Your task to perform on an android device: Turn off the flashlight Image 0: 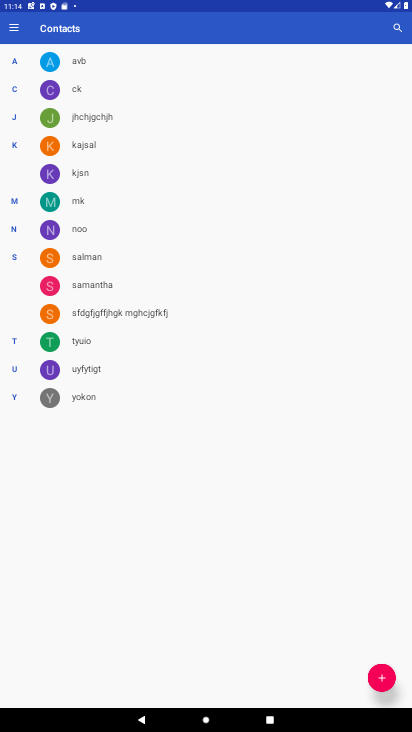
Step 0: press home button
Your task to perform on an android device: Turn off the flashlight Image 1: 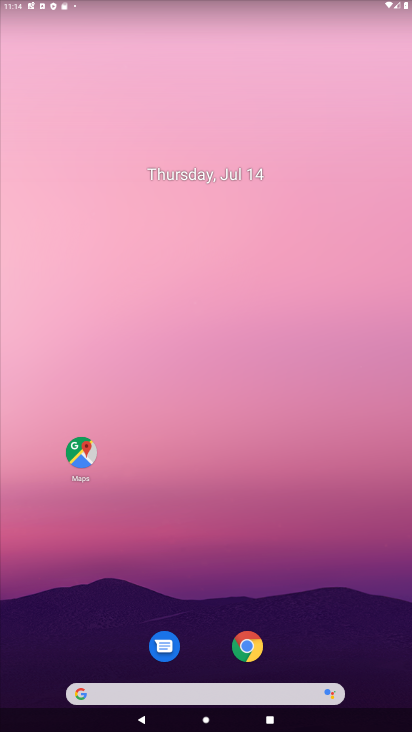
Step 1: drag from (210, 630) to (266, 121)
Your task to perform on an android device: Turn off the flashlight Image 2: 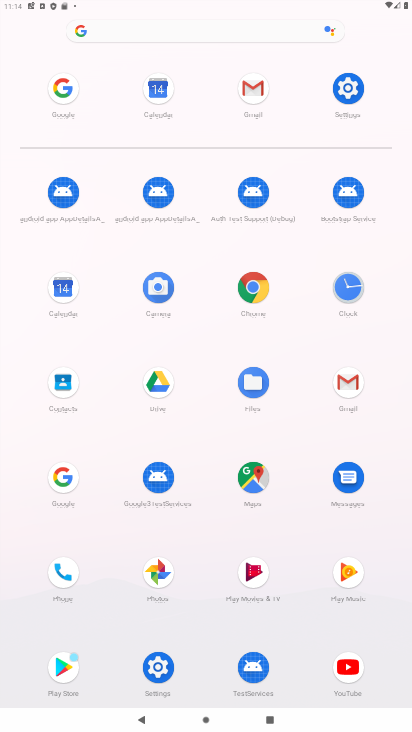
Step 2: click (334, 100)
Your task to perform on an android device: Turn off the flashlight Image 3: 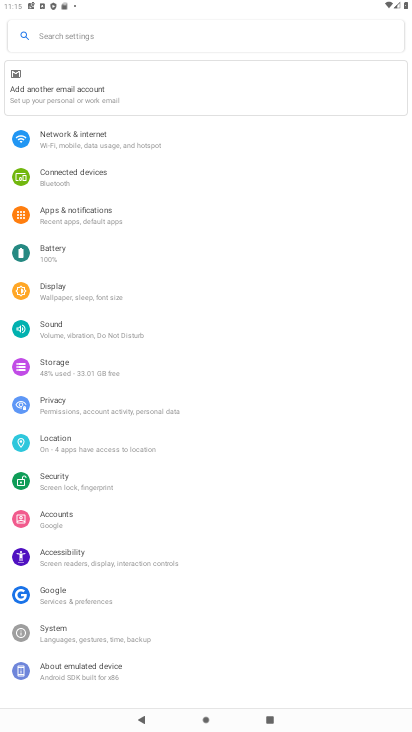
Step 3: task complete